Your task to perform on an android device: see tabs open on other devices in the chrome app Image 0: 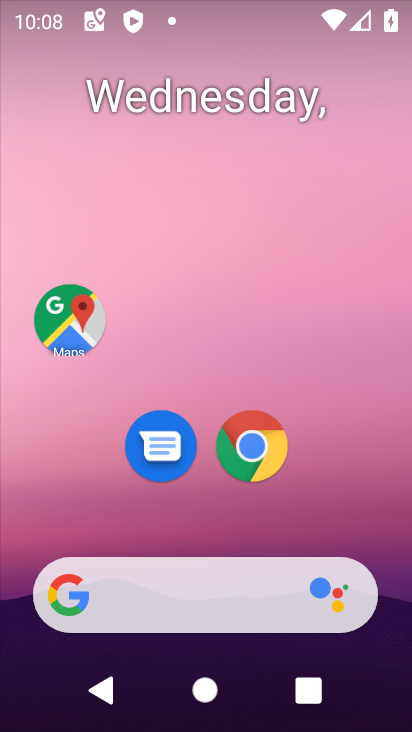
Step 0: click (246, 451)
Your task to perform on an android device: see tabs open on other devices in the chrome app Image 1: 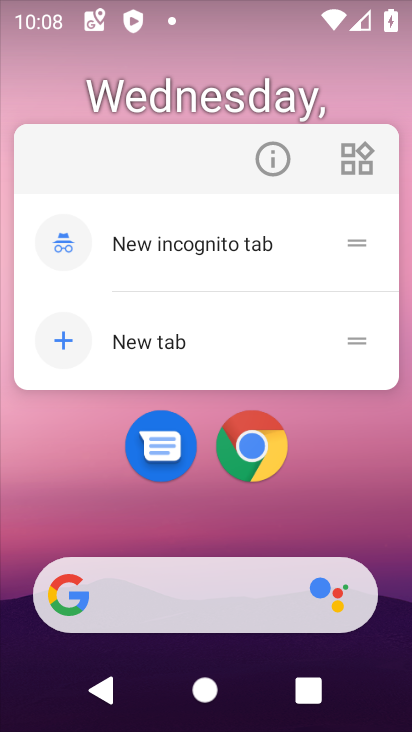
Step 1: click (260, 458)
Your task to perform on an android device: see tabs open on other devices in the chrome app Image 2: 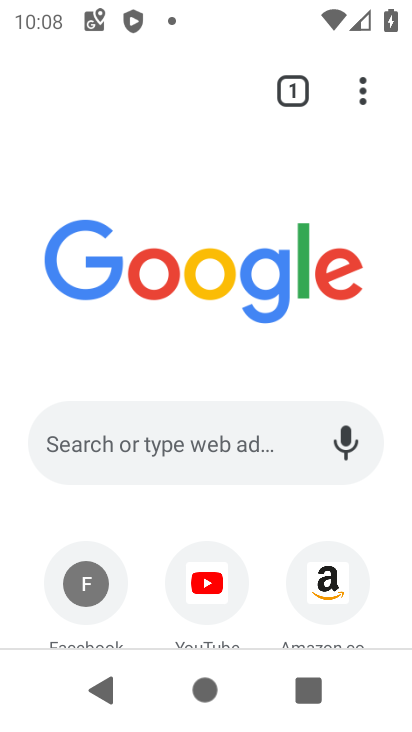
Step 2: click (360, 97)
Your task to perform on an android device: see tabs open on other devices in the chrome app Image 3: 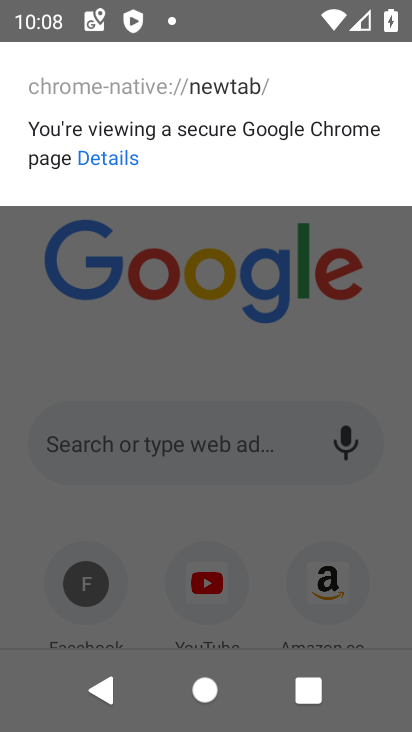
Step 3: click (351, 343)
Your task to perform on an android device: see tabs open on other devices in the chrome app Image 4: 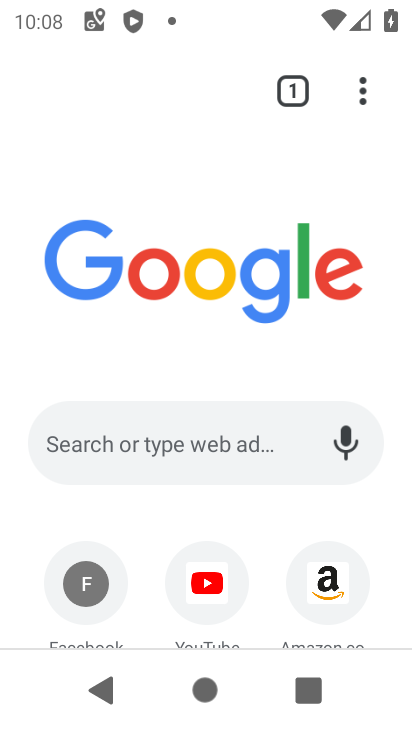
Step 4: click (364, 93)
Your task to perform on an android device: see tabs open on other devices in the chrome app Image 5: 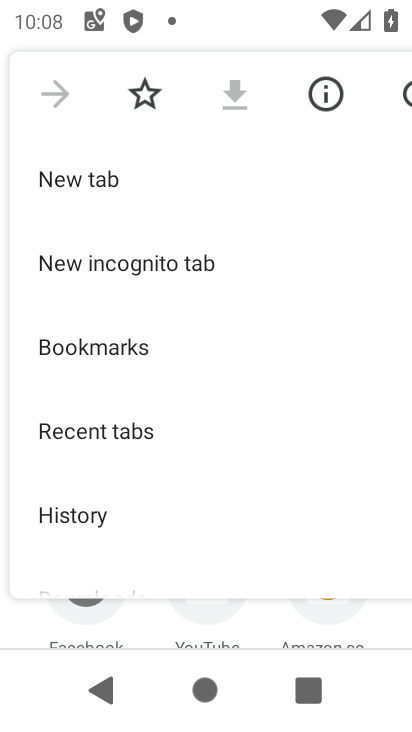
Step 5: click (124, 431)
Your task to perform on an android device: see tabs open on other devices in the chrome app Image 6: 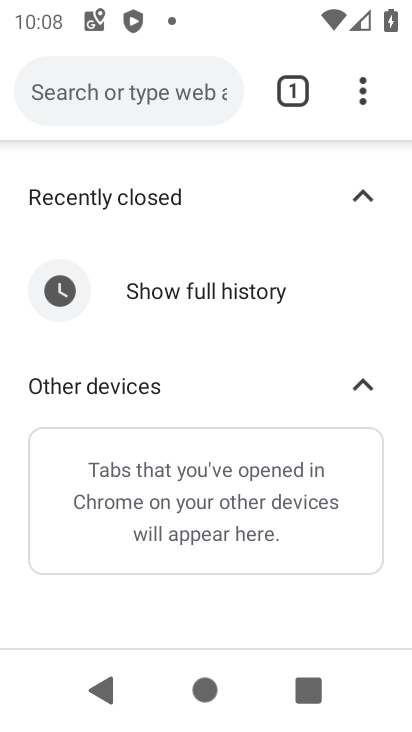
Step 6: task complete